Your task to perform on an android device: add a contact in the contacts app Image 0: 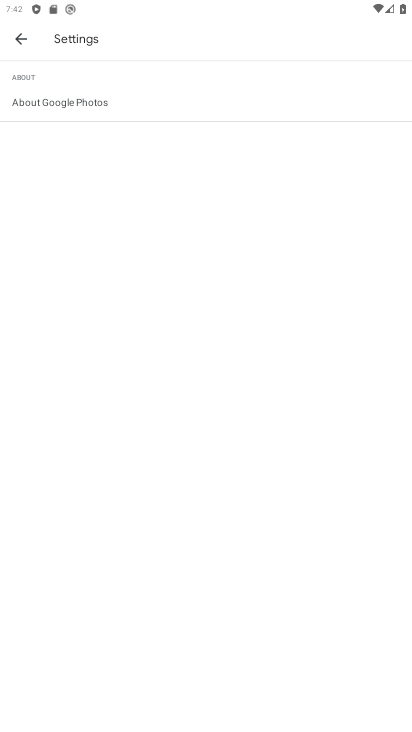
Step 0: press back button
Your task to perform on an android device: add a contact in the contacts app Image 1: 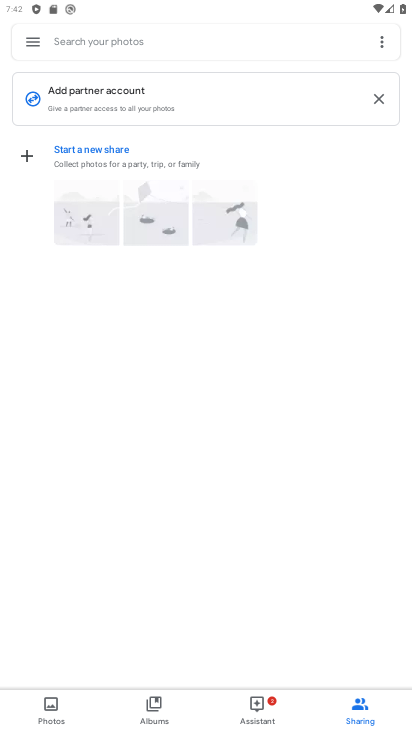
Step 1: press back button
Your task to perform on an android device: add a contact in the contacts app Image 2: 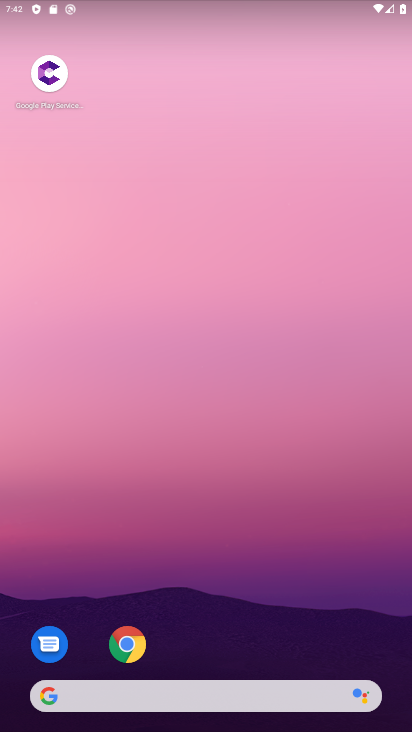
Step 2: drag from (214, 614) to (216, 135)
Your task to perform on an android device: add a contact in the contacts app Image 3: 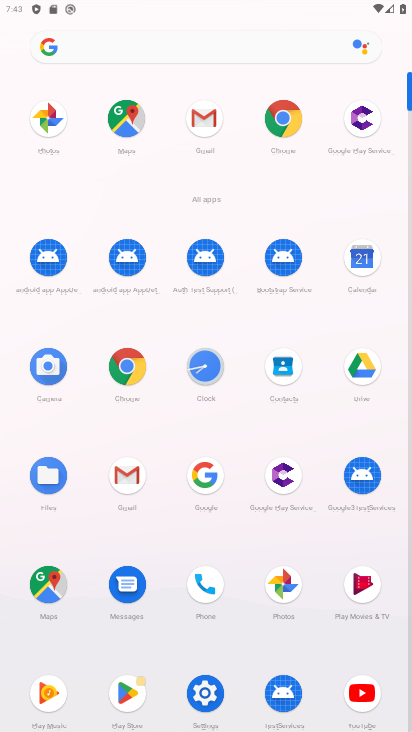
Step 3: click (280, 363)
Your task to perform on an android device: add a contact in the contacts app Image 4: 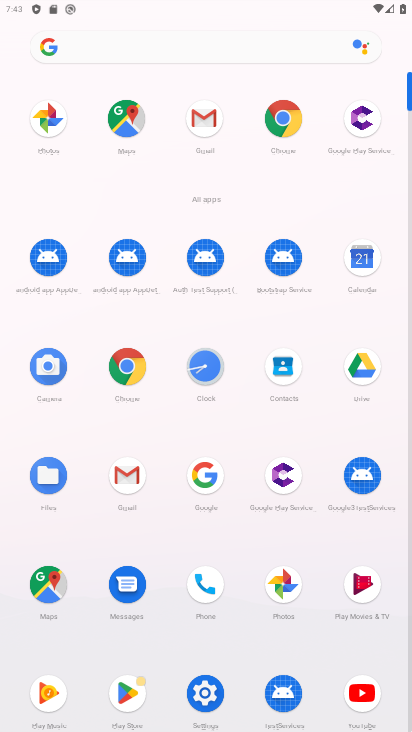
Step 4: click (280, 363)
Your task to perform on an android device: add a contact in the contacts app Image 5: 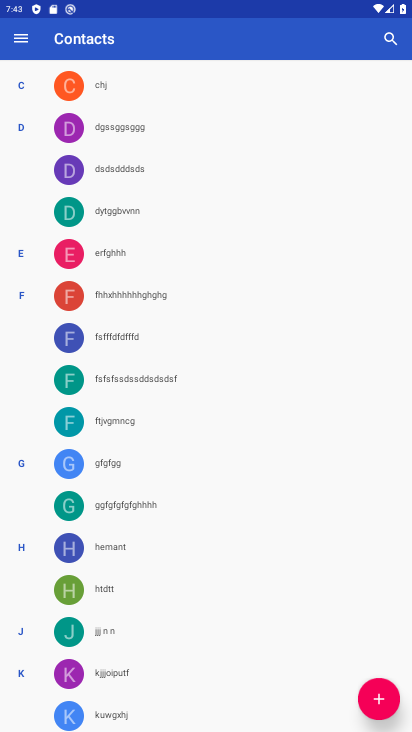
Step 5: click (371, 698)
Your task to perform on an android device: add a contact in the contacts app Image 6: 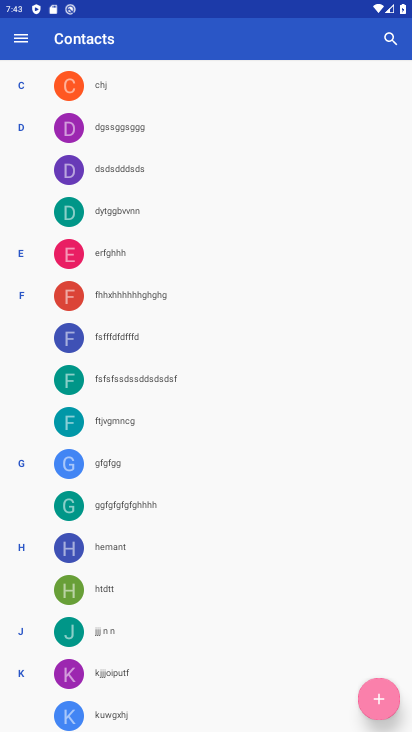
Step 6: click (373, 697)
Your task to perform on an android device: add a contact in the contacts app Image 7: 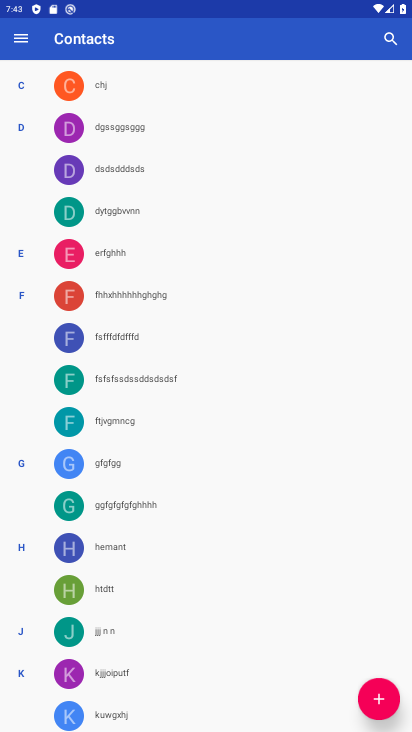
Step 7: click (370, 698)
Your task to perform on an android device: add a contact in the contacts app Image 8: 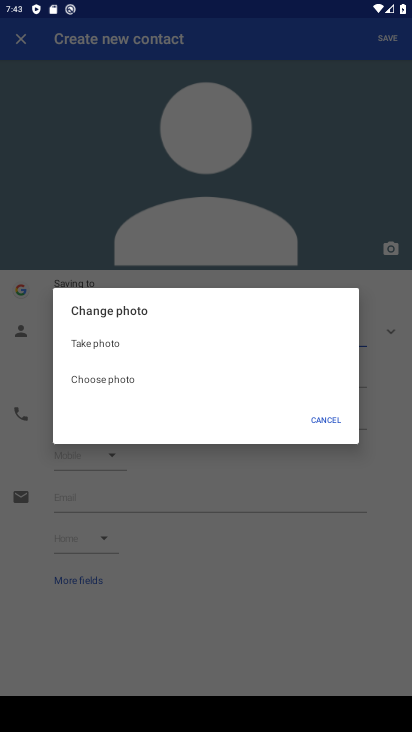
Step 8: click (328, 412)
Your task to perform on an android device: add a contact in the contacts app Image 9: 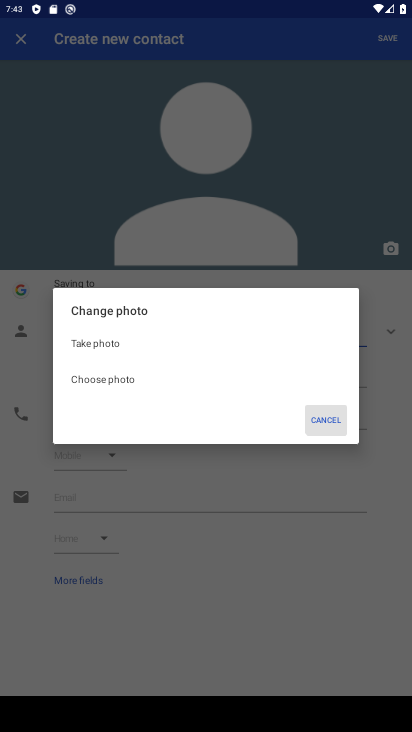
Step 9: click (329, 414)
Your task to perform on an android device: add a contact in the contacts app Image 10: 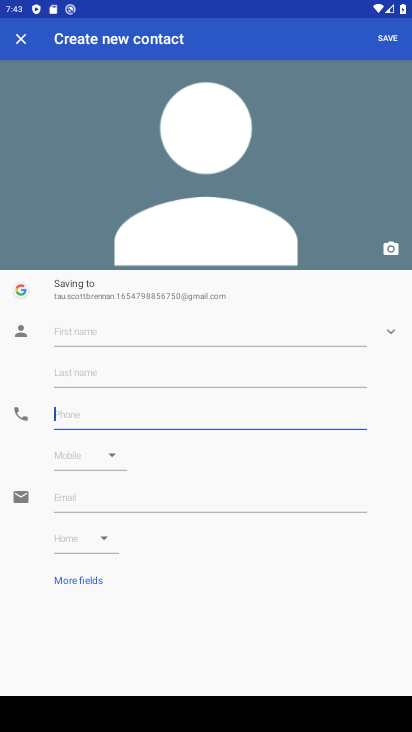
Step 10: click (69, 327)
Your task to perform on an android device: add a contact in the contacts app Image 11: 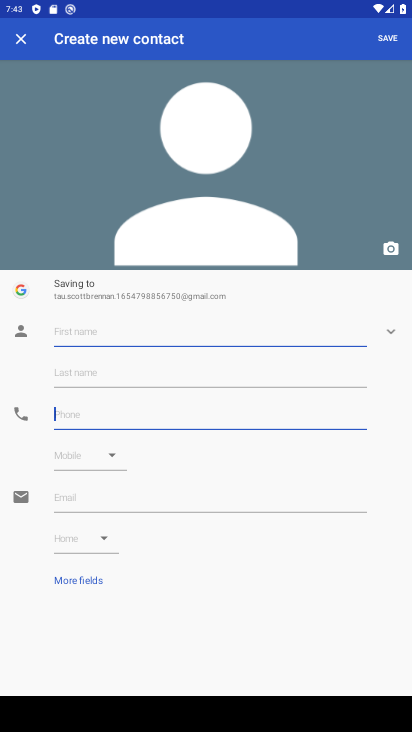
Step 11: click (71, 328)
Your task to perform on an android device: add a contact in the contacts app Image 12: 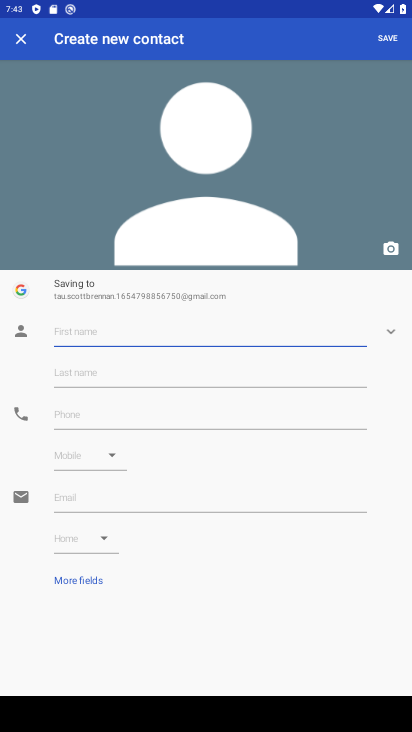
Step 12: click (72, 328)
Your task to perform on an android device: add a contact in the contacts app Image 13: 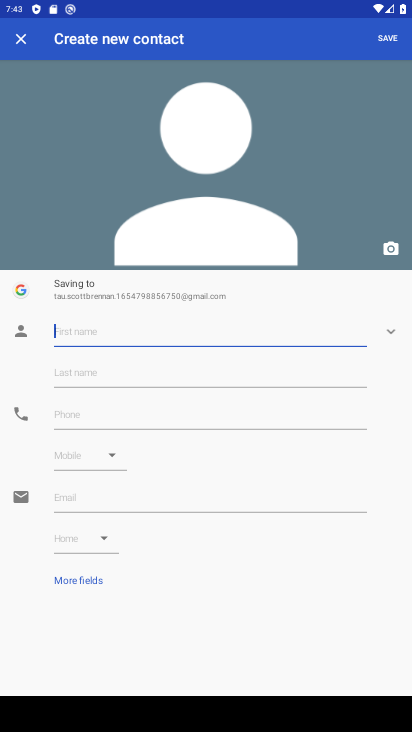
Step 13: type "hbvjhbkvk"
Your task to perform on an android device: add a contact in the contacts app Image 14: 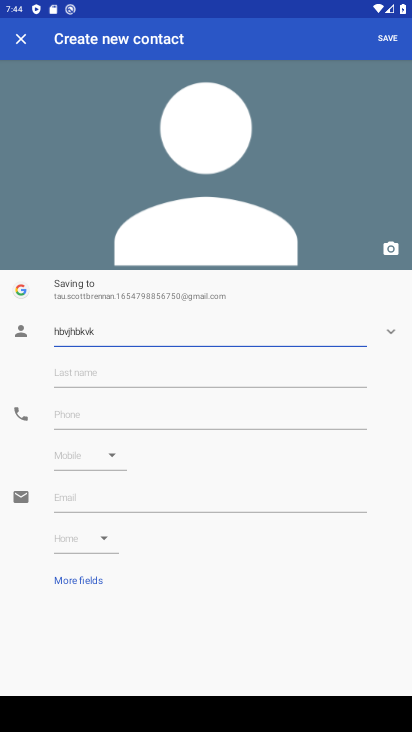
Step 14: click (63, 407)
Your task to perform on an android device: add a contact in the contacts app Image 15: 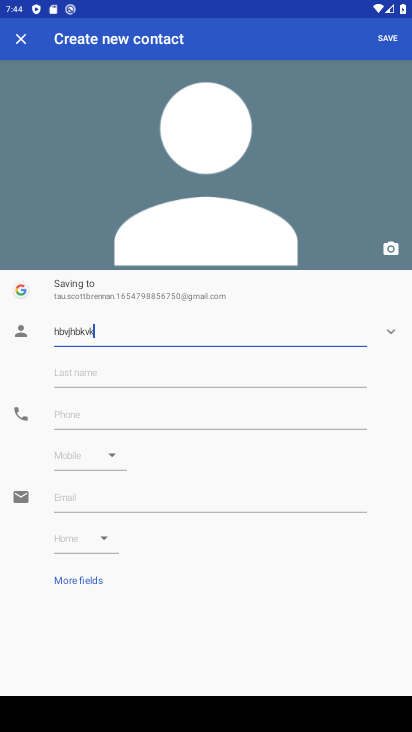
Step 15: click (63, 407)
Your task to perform on an android device: add a contact in the contacts app Image 16: 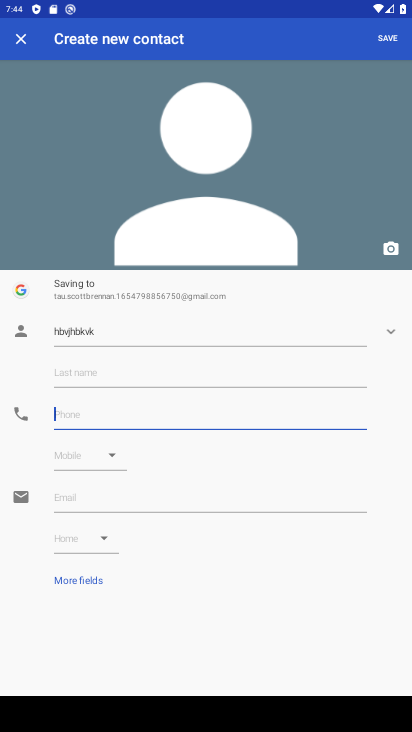
Step 16: click (63, 407)
Your task to perform on an android device: add a contact in the contacts app Image 17: 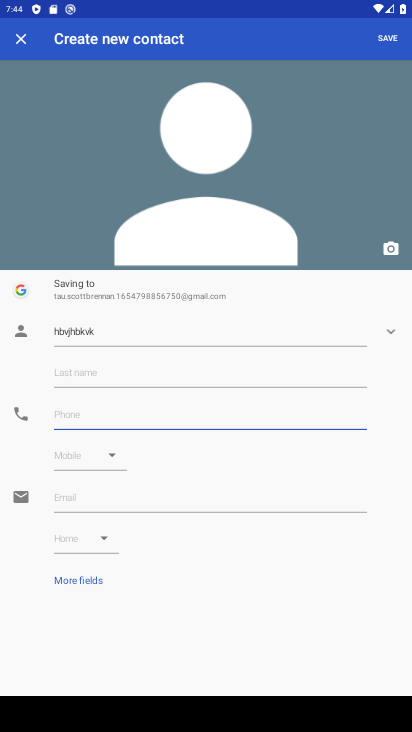
Step 17: type "876974384843273597"
Your task to perform on an android device: add a contact in the contacts app Image 18: 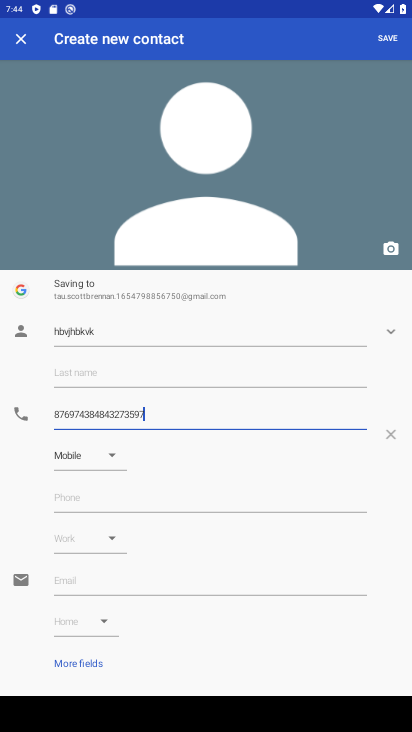
Step 18: click (392, 39)
Your task to perform on an android device: add a contact in the contacts app Image 19: 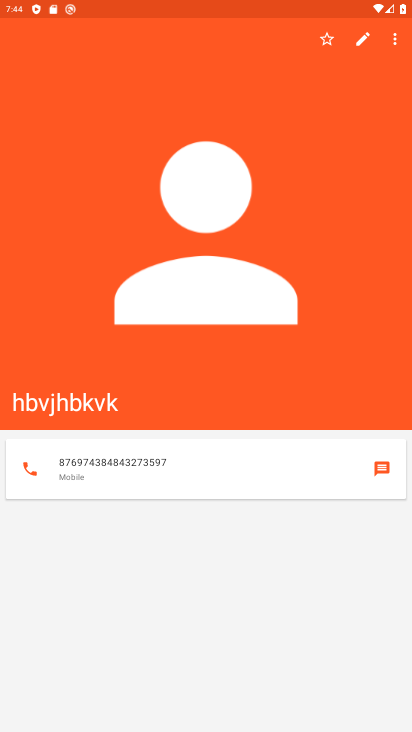
Step 19: task complete